Your task to perform on an android device: Do I have any events today? Image 0: 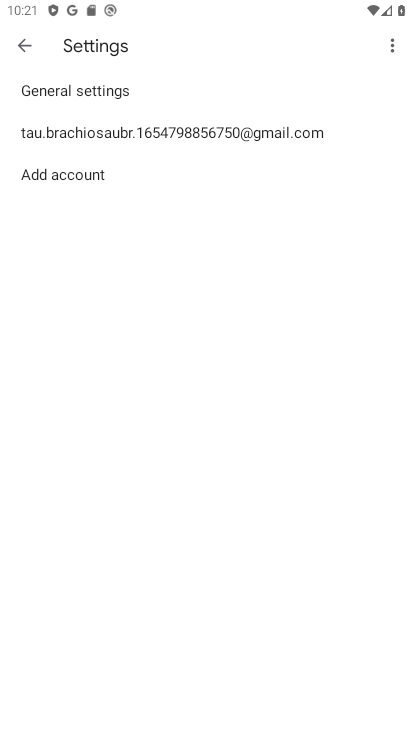
Step 0: press home button
Your task to perform on an android device: Do I have any events today? Image 1: 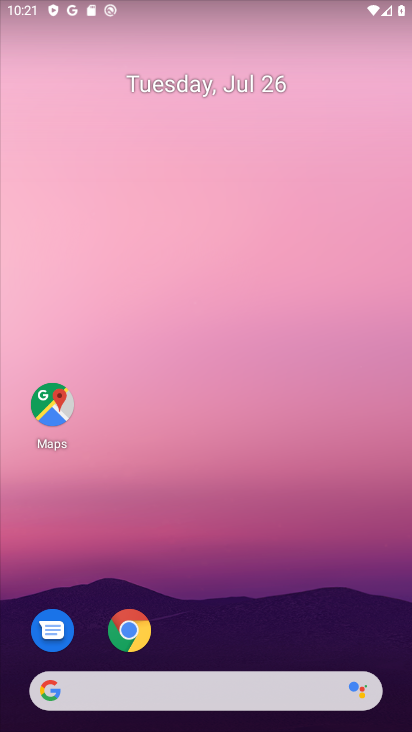
Step 1: drag from (199, 720) to (349, 80)
Your task to perform on an android device: Do I have any events today? Image 2: 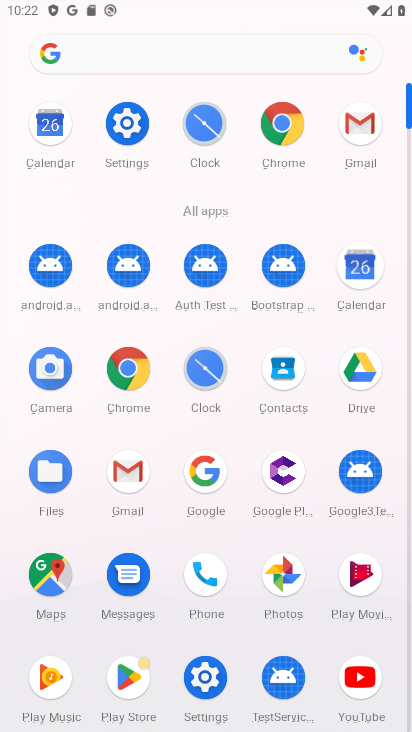
Step 2: click (368, 291)
Your task to perform on an android device: Do I have any events today? Image 3: 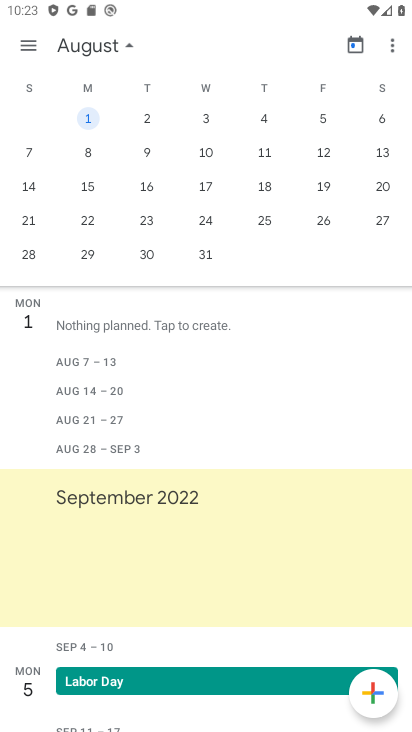
Step 3: drag from (38, 144) to (405, 239)
Your task to perform on an android device: Do I have any events today? Image 4: 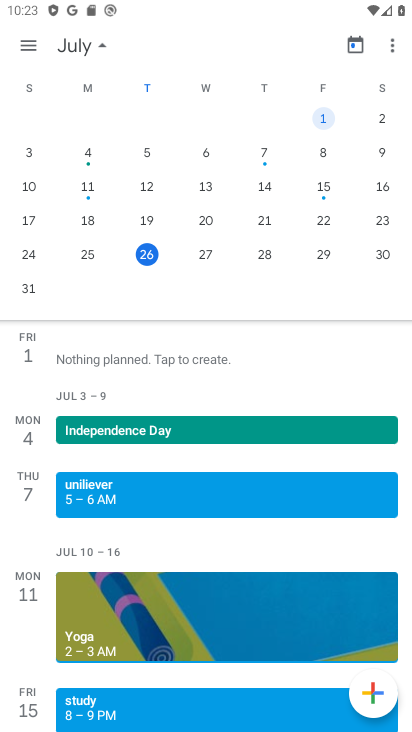
Step 4: click (19, 37)
Your task to perform on an android device: Do I have any events today? Image 5: 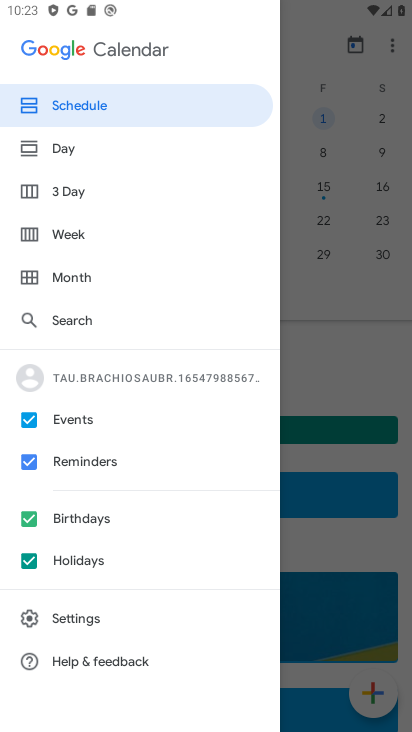
Step 5: click (74, 109)
Your task to perform on an android device: Do I have any events today? Image 6: 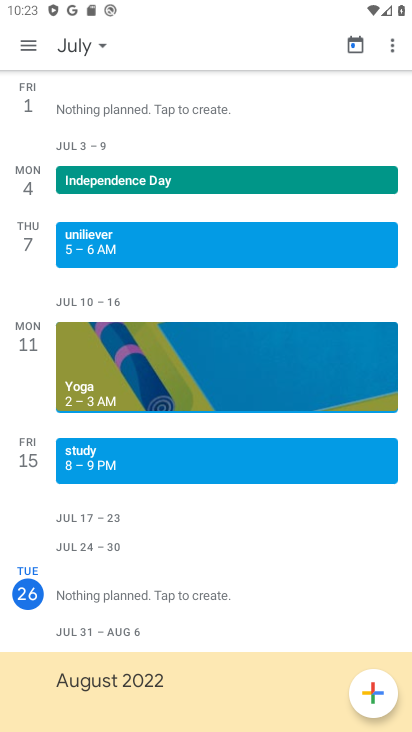
Step 6: task complete